Your task to perform on an android device: Show me some nice wallpapers for my desktop Image 0: 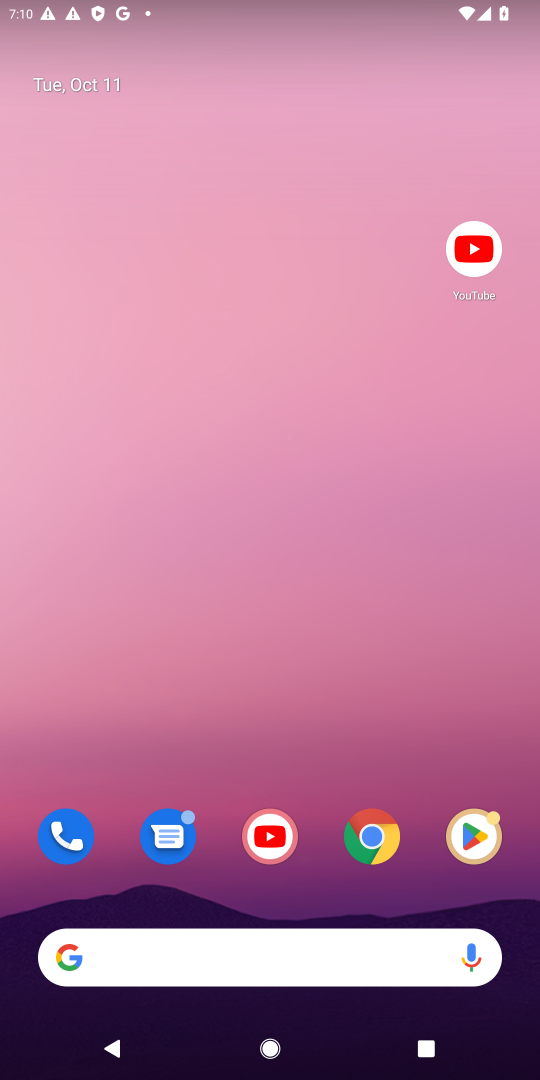
Step 0: click (367, 832)
Your task to perform on an android device: Show me some nice wallpapers for my desktop Image 1: 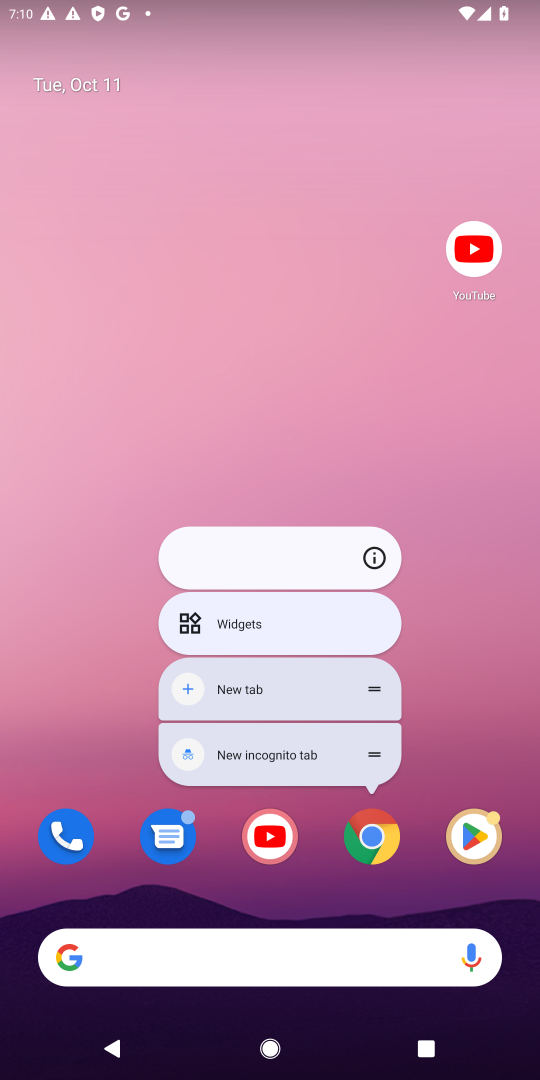
Step 1: click (374, 831)
Your task to perform on an android device: Show me some nice wallpapers for my desktop Image 2: 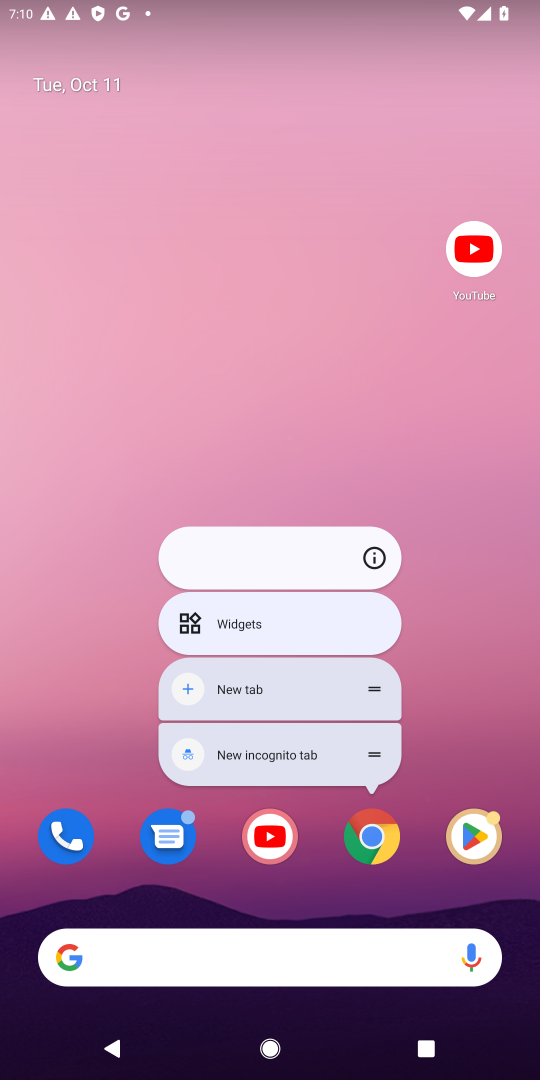
Step 2: click (374, 834)
Your task to perform on an android device: Show me some nice wallpapers for my desktop Image 3: 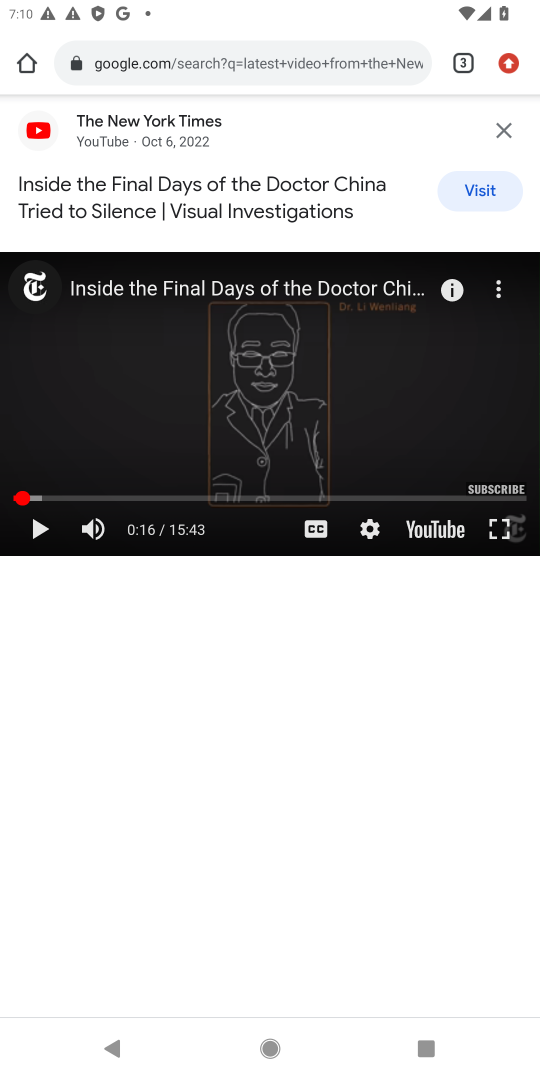
Step 3: click (304, 61)
Your task to perform on an android device: Show me some nice wallpapers for my desktop Image 4: 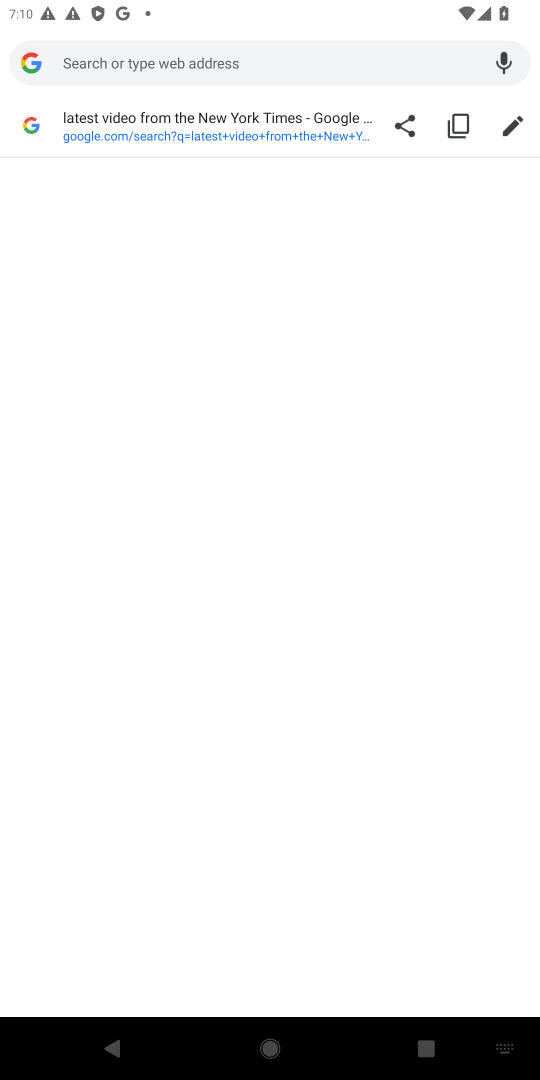
Step 4: type " nice wallpapers for my desktop"
Your task to perform on an android device: Show me some nice wallpapers for my desktop Image 5: 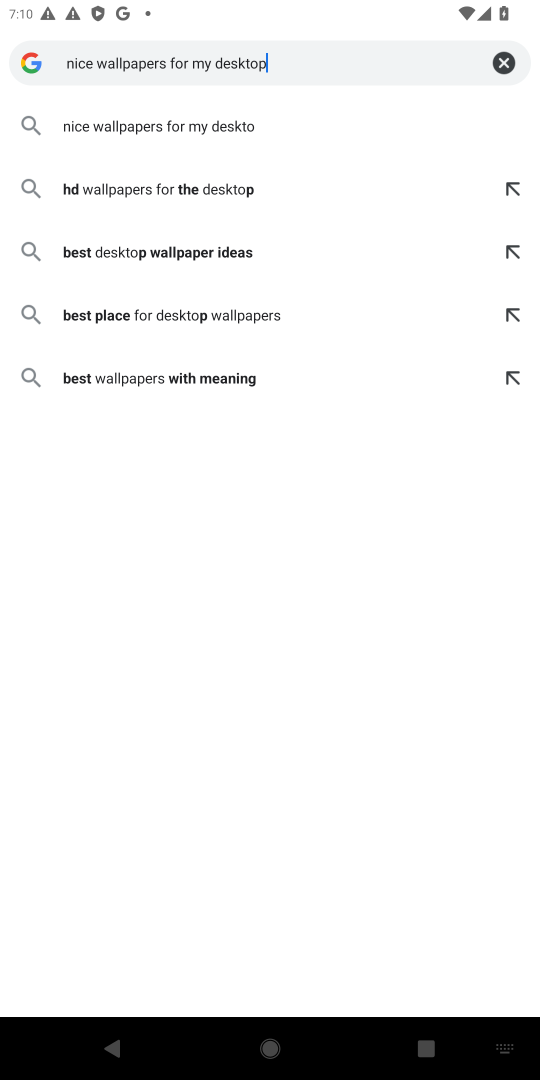
Step 5: press enter
Your task to perform on an android device: Show me some nice wallpapers for my desktop Image 6: 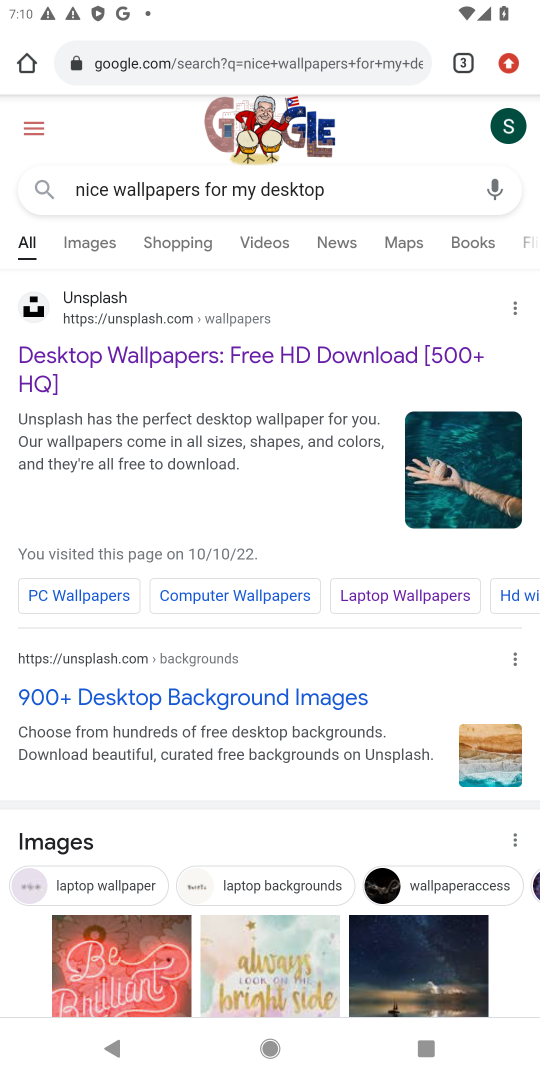
Step 6: click (200, 359)
Your task to perform on an android device: Show me some nice wallpapers for my desktop Image 7: 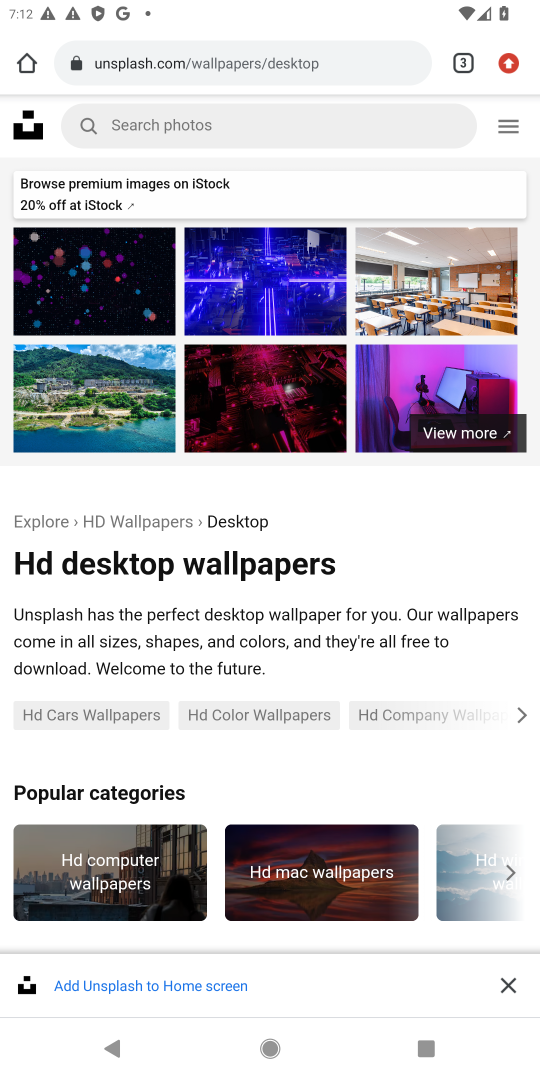
Step 7: task complete